Your task to perform on an android device: change your default location settings in chrome Image 0: 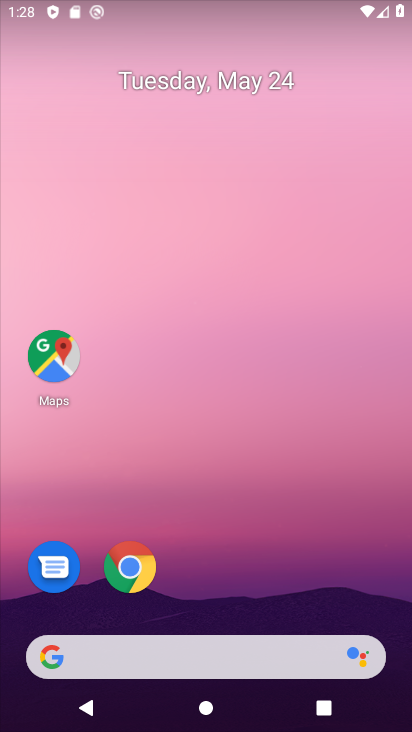
Step 0: click (231, 379)
Your task to perform on an android device: change your default location settings in chrome Image 1: 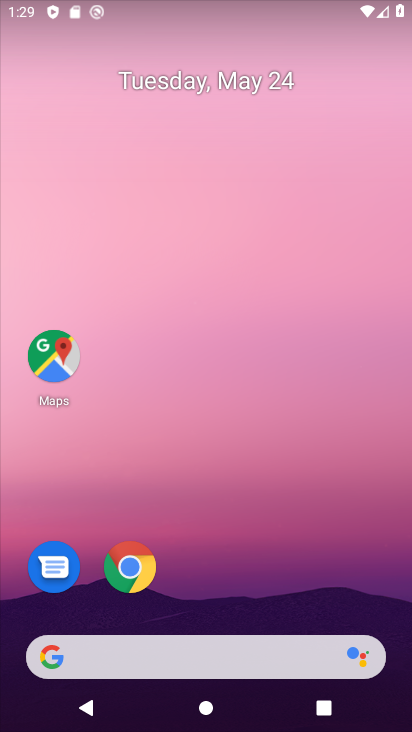
Step 1: click (117, 579)
Your task to perform on an android device: change your default location settings in chrome Image 2: 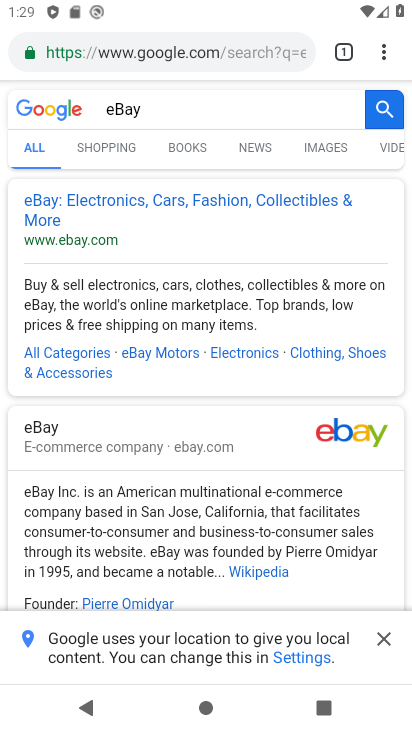
Step 2: click (386, 45)
Your task to perform on an android device: change your default location settings in chrome Image 3: 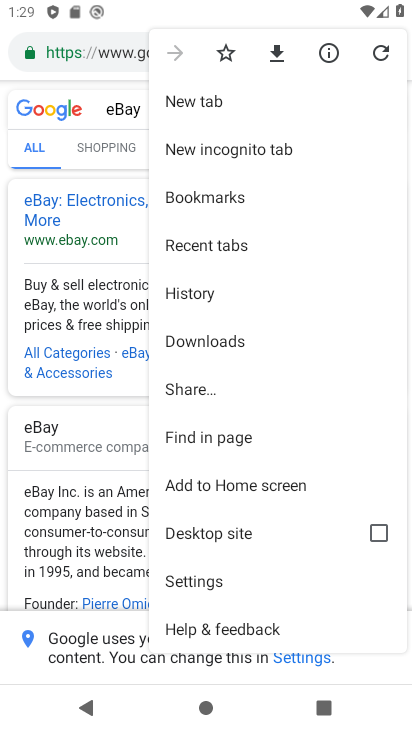
Step 3: click (197, 577)
Your task to perform on an android device: change your default location settings in chrome Image 4: 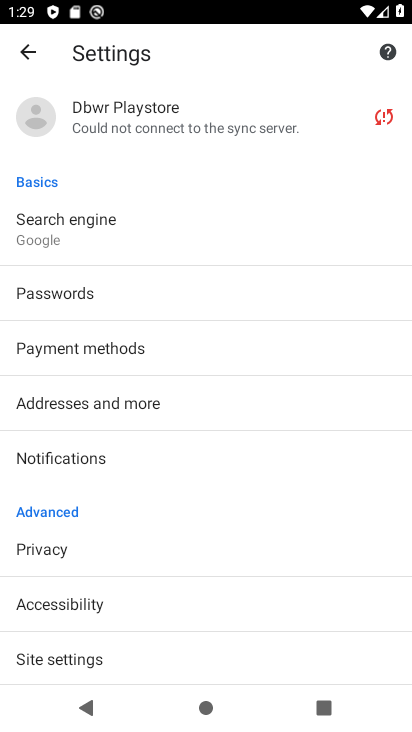
Step 4: drag from (102, 589) to (107, 552)
Your task to perform on an android device: change your default location settings in chrome Image 5: 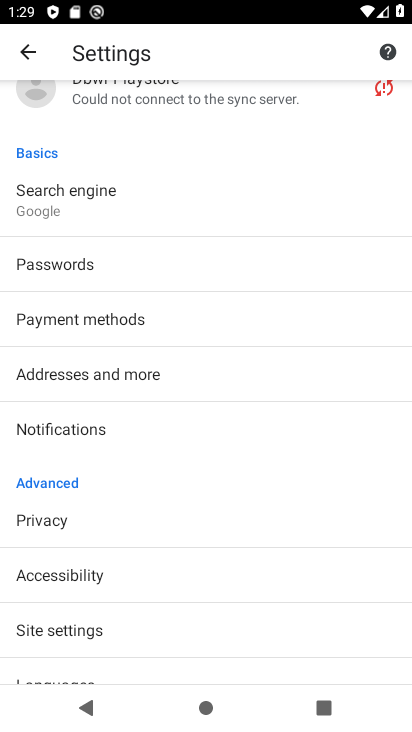
Step 5: click (53, 636)
Your task to perform on an android device: change your default location settings in chrome Image 6: 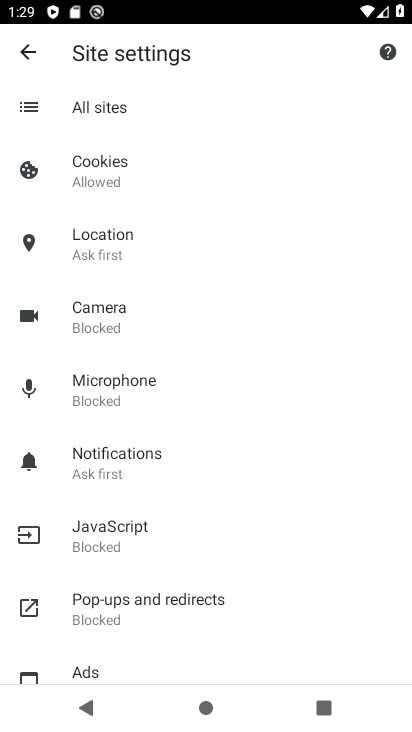
Step 6: click (130, 245)
Your task to perform on an android device: change your default location settings in chrome Image 7: 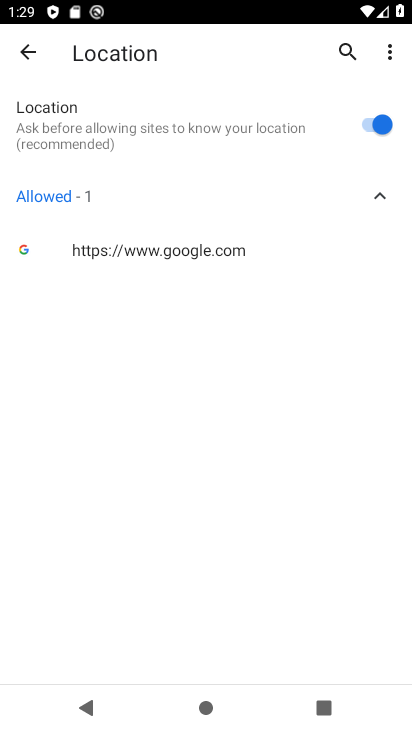
Step 7: click (357, 120)
Your task to perform on an android device: change your default location settings in chrome Image 8: 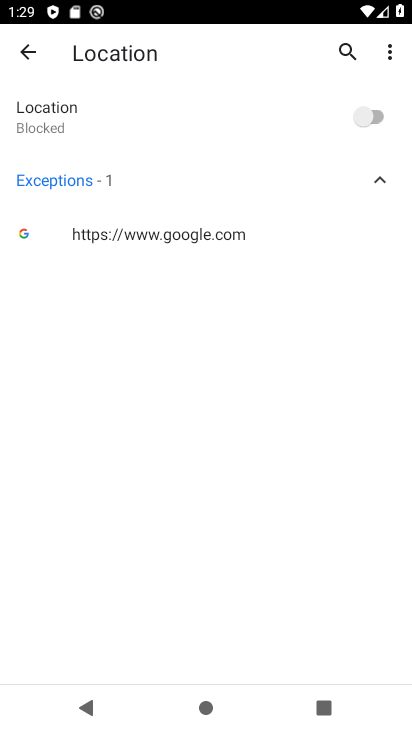
Step 8: task complete